Your task to perform on an android device: turn on improve location accuracy Image 0: 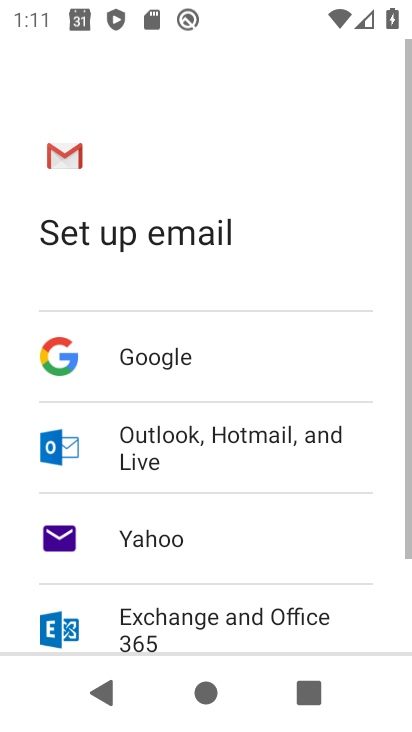
Step 0: press back button
Your task to perform on an android device: turn on improve location accuracy Image 1: 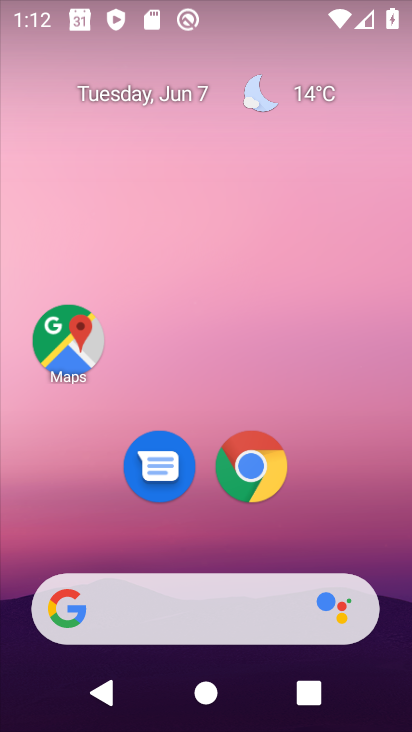
Step 1: drag from (219, 553) to (218, 118)
Your task to perform on an android device: turn on improve location accuracy Image 2: 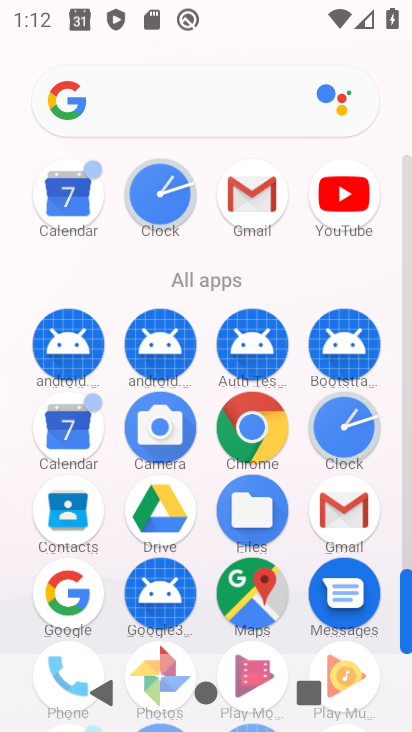
Step 2: drag from (157, 537) to (250, 86)
Your task to perform on an android device: turn on improve location accuracy Image 3: 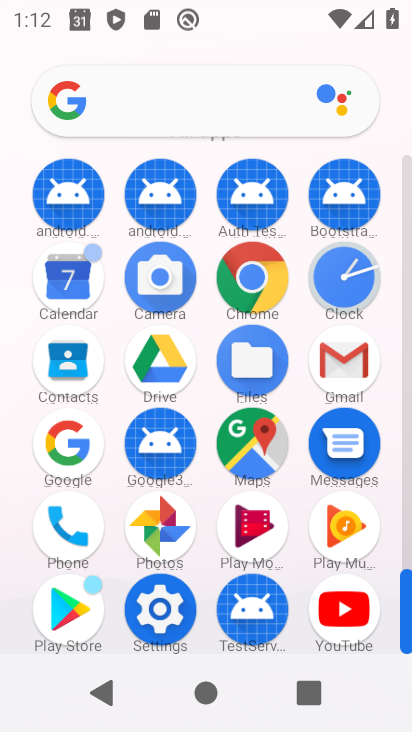
Step 3: click (157, 613)
Your task to perform on an android device: turn on improve location accuracy Image 4: 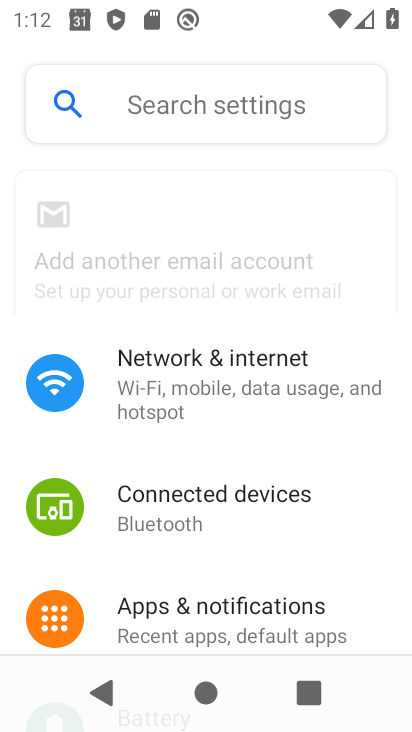
Step 4: drag from (203, 540) to (281, 121)
Your task to perform on an android device: turn on improve location accuracy Image 5: 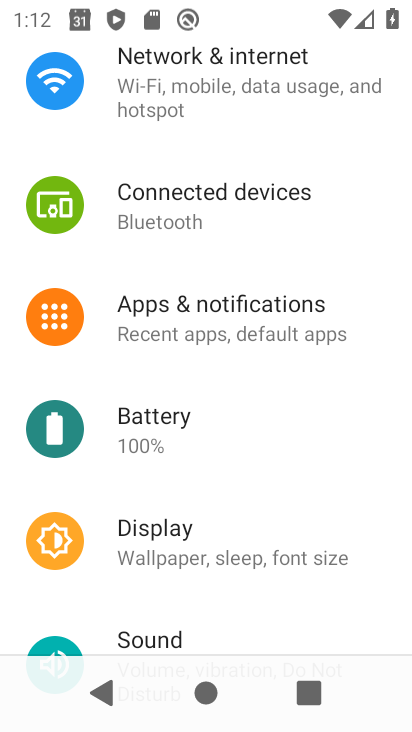
Step 5: drag from (211, 572) to (264, 123)
Your task to perform on an android device: turn on improve location accuracy Image 6: 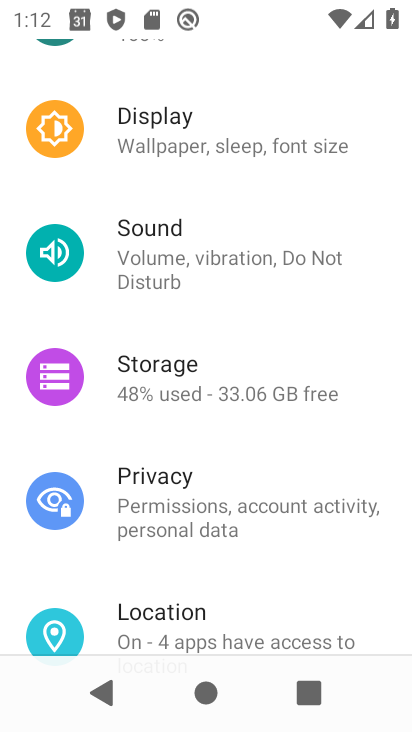
Step 6: click (133, 618)
Your task to perform on an android device: turn on improve location accuracy Image 7: 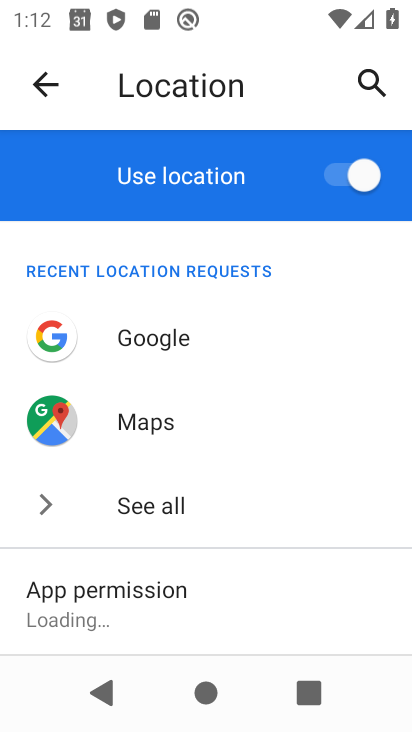
Step 7: drag from (221, 566) to (251, 156)
Your task to perform on an android device: turn on improve location accuracy Image 8: 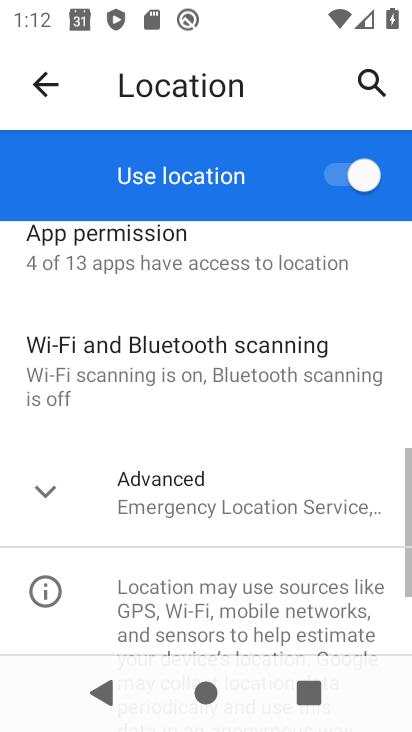
Step 8: click (183, 488)
Your task to perform on an android device: turn on improve location accuracy Image 9: 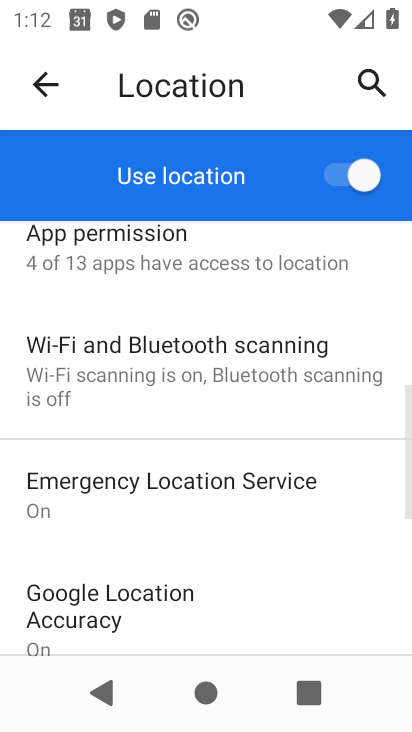
Step 9: click (137, 599)
Your task to perform on an android device: turn on improve location accuracy Image 10: 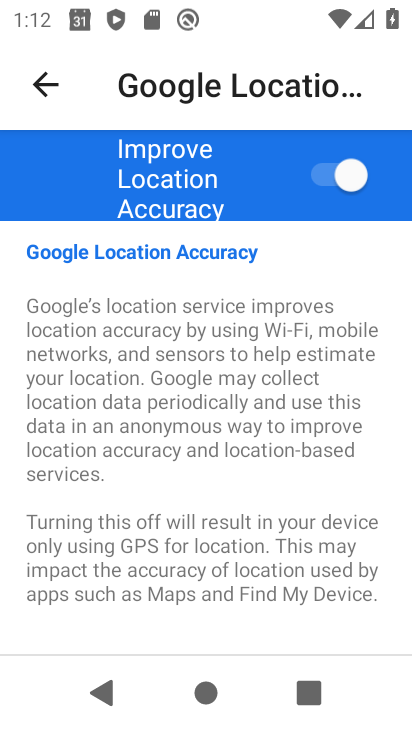
Step 10: task complete